Your task to perform on an android device: Search for pizza restaurants on Maps Image 0: 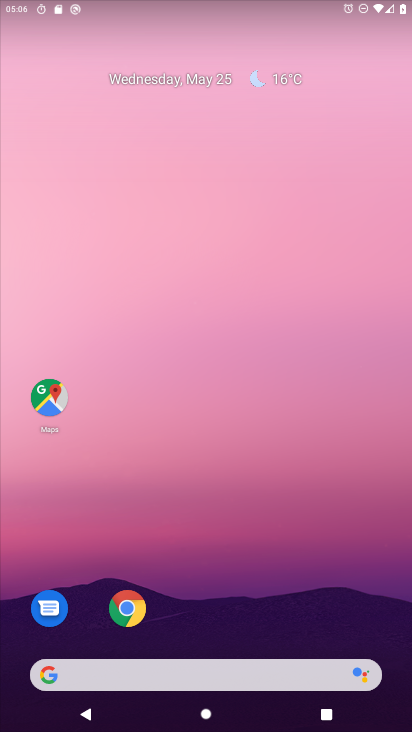
Step 0: drag from (193, 566) to (210, 237)
Your task to perform on an android device: Search for pizza restaurants on Maps Image 1: 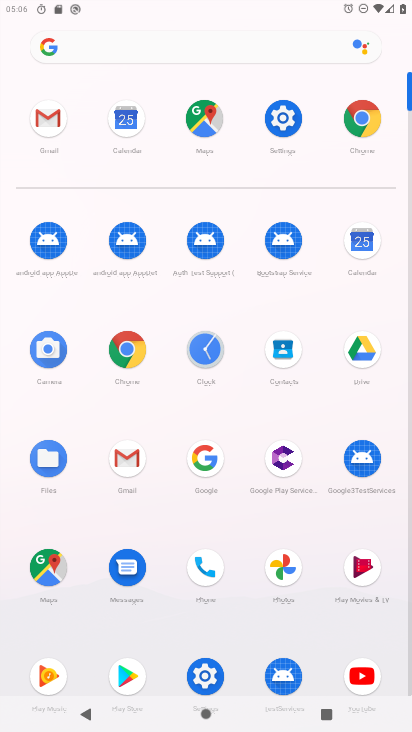
Step 1: click (51, 566)
Your task to perform on an android device: Search for pizza restaurants on Maps Image 2: 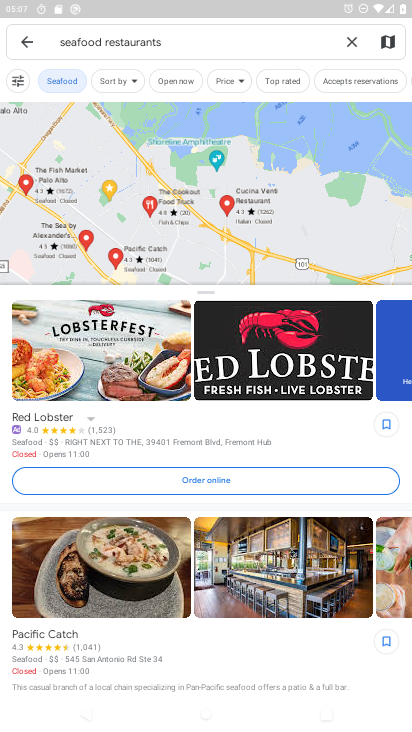
Step 2: click (207, 39)
Your task to perform on an android device: Search for pizza restaurants on Maps Image 3: 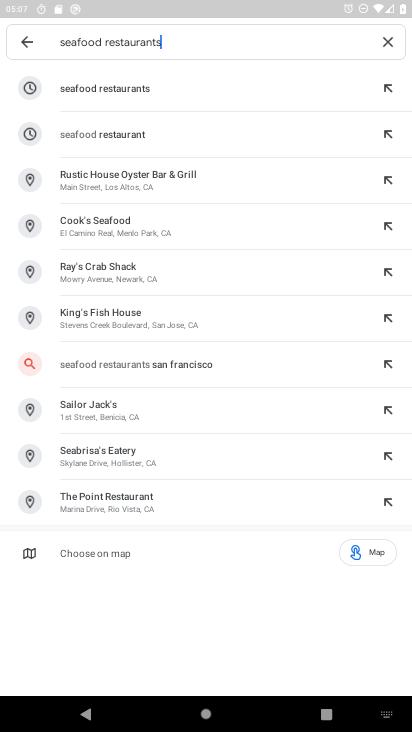
Step 3: click (385, 48)
Your task to perform on an android device: Search for pizza restaurants on Maps Image 4: 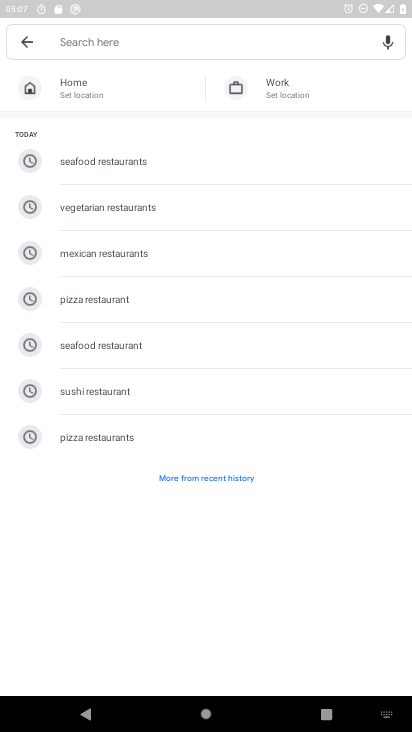
Step 4: type "pizza restaurants"
Your task to perform on an android device: Search for pizza restaurants on Maps Image 5: 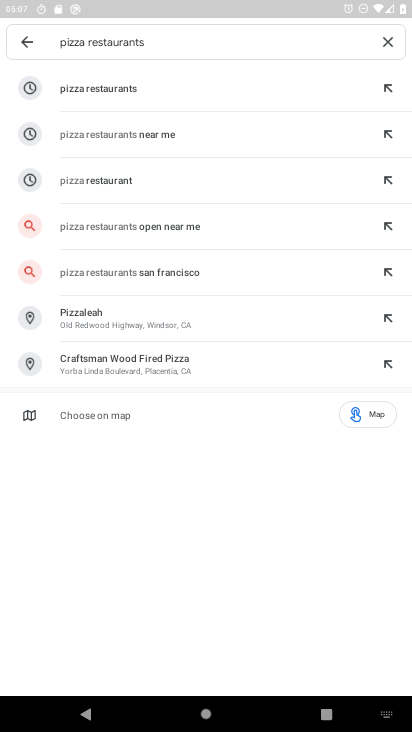
Step 5: click (180, 96)
Your task to perform on an android device: Search for pizza restaurants on Maps Image 6: 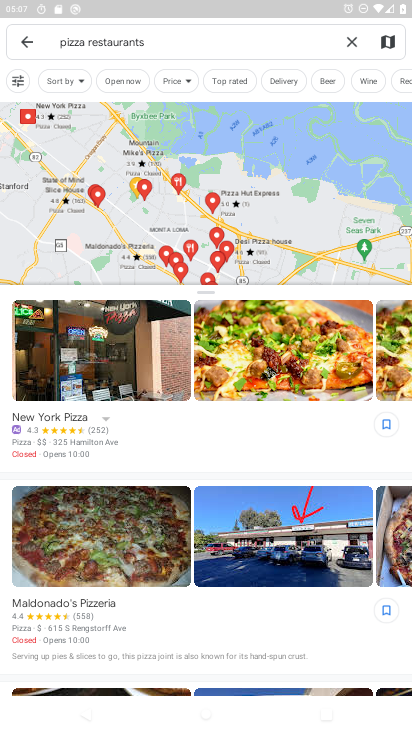
Step 6: task complete